Your task to perform on an android device: turn pop-ups on in chrome Image 0: 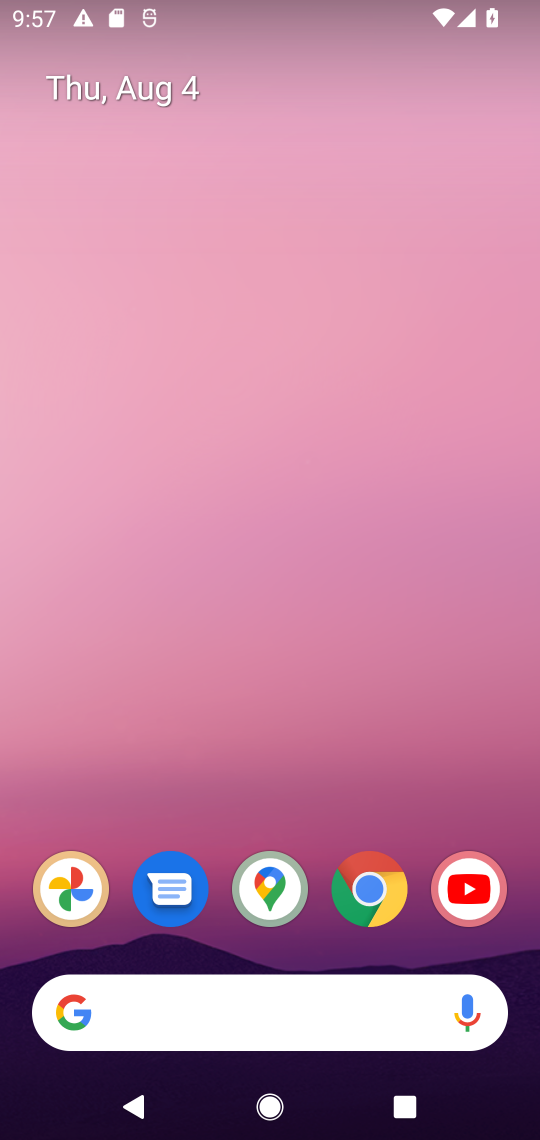
Step 0: press home button
Your task to perform on an android device: turn pop-ups on in chrome Image 1: 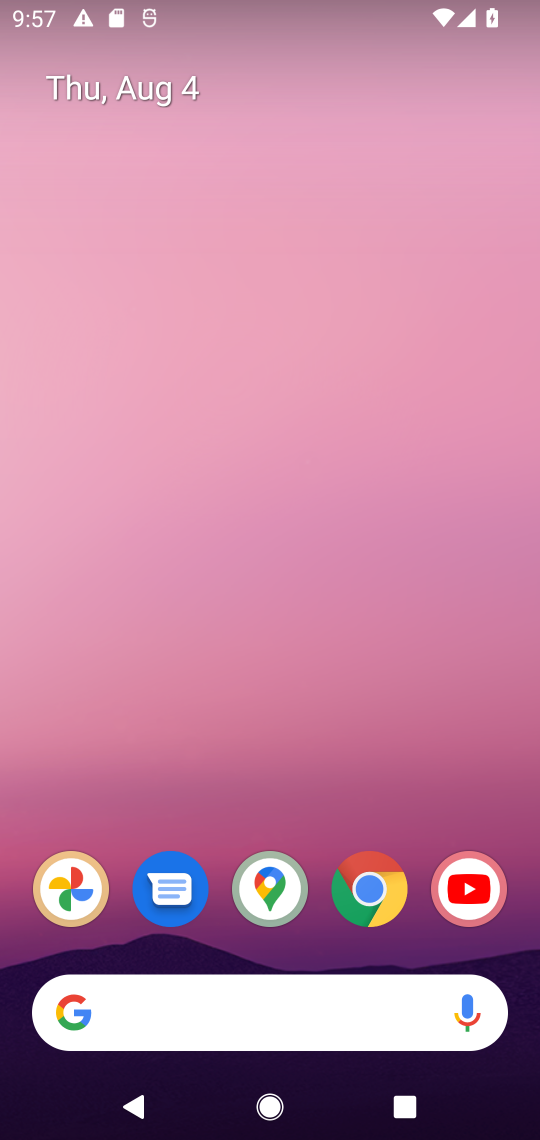
Step 1: drag from (328, 795) to (306, 218)
Your task to perform on an android device: turn pop-ups on in chrome Image 2: 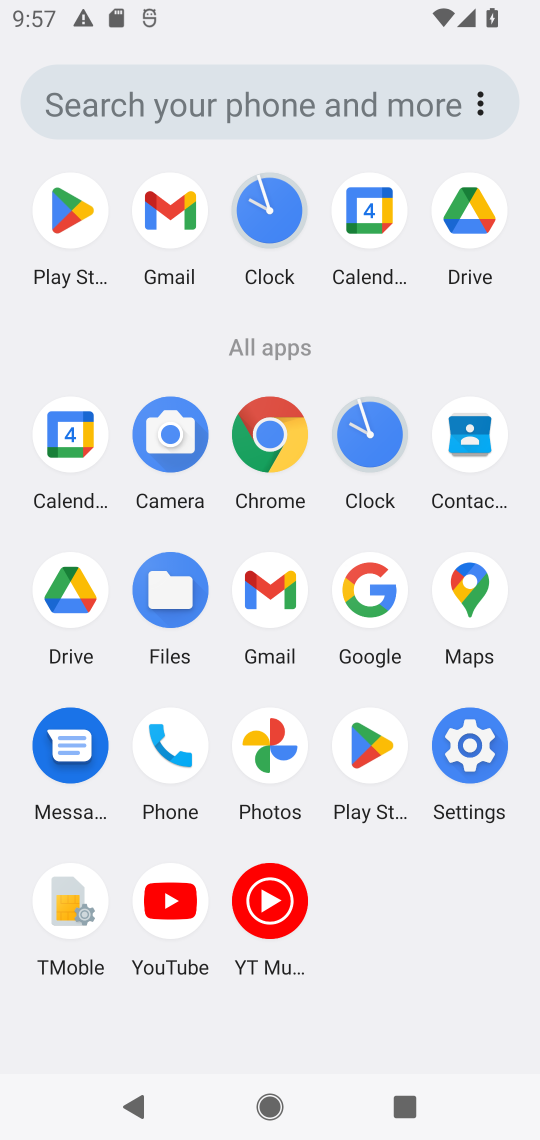
Step 2: click (267, 461)
Your task to perform on an android device: turn pop-ups on in chrome Image 3: 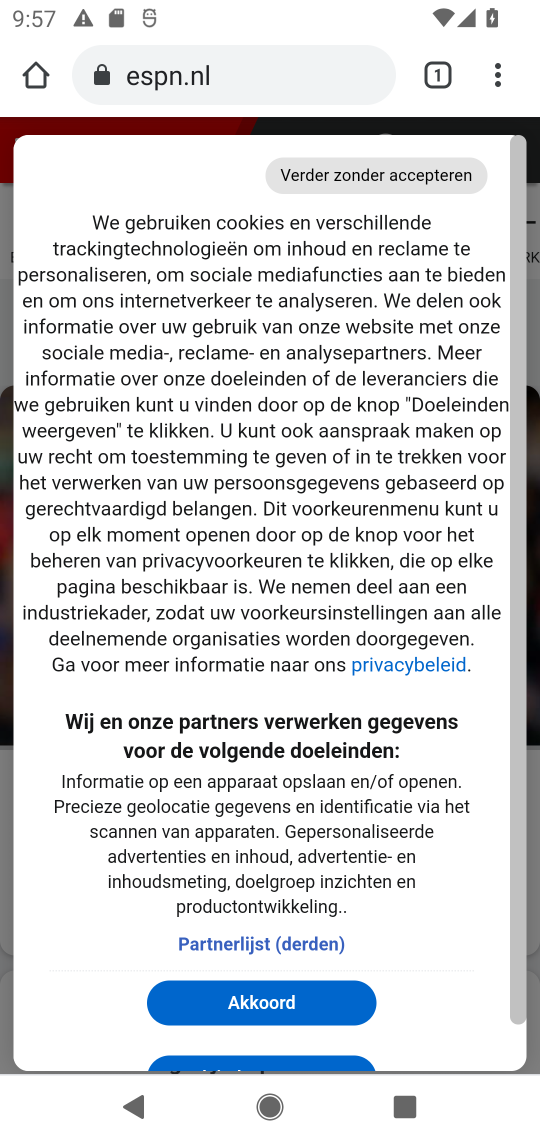
Step 3: click (498, 73)
Your task to perform on an android device: turn pop-ups on in chrome Image 4: 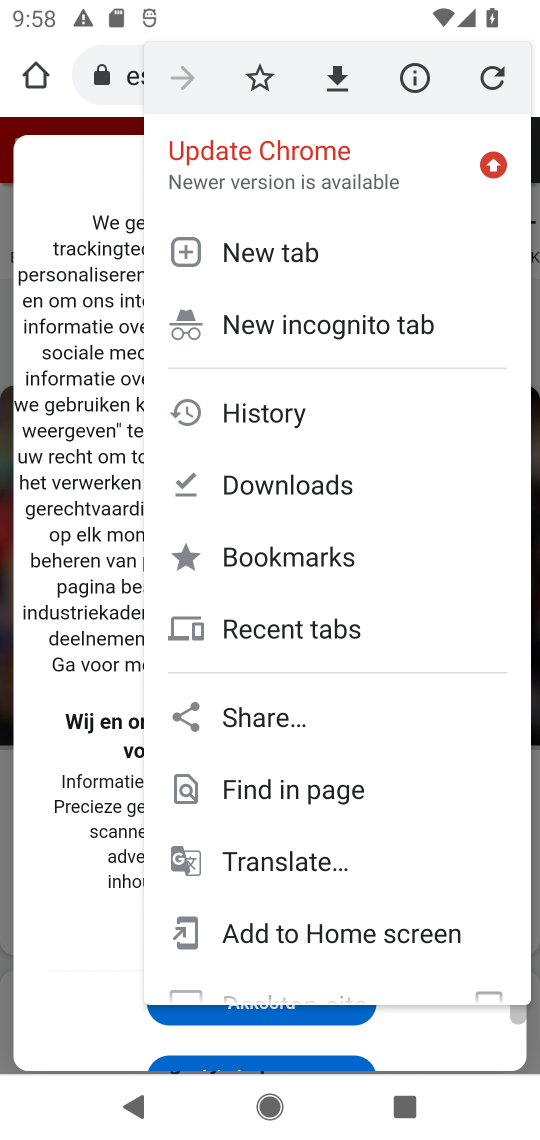
Step 4: drag from (475, 536) to (476, 376)
Your task to perform on an android device: turn pop-ups on in chrome Image 5: 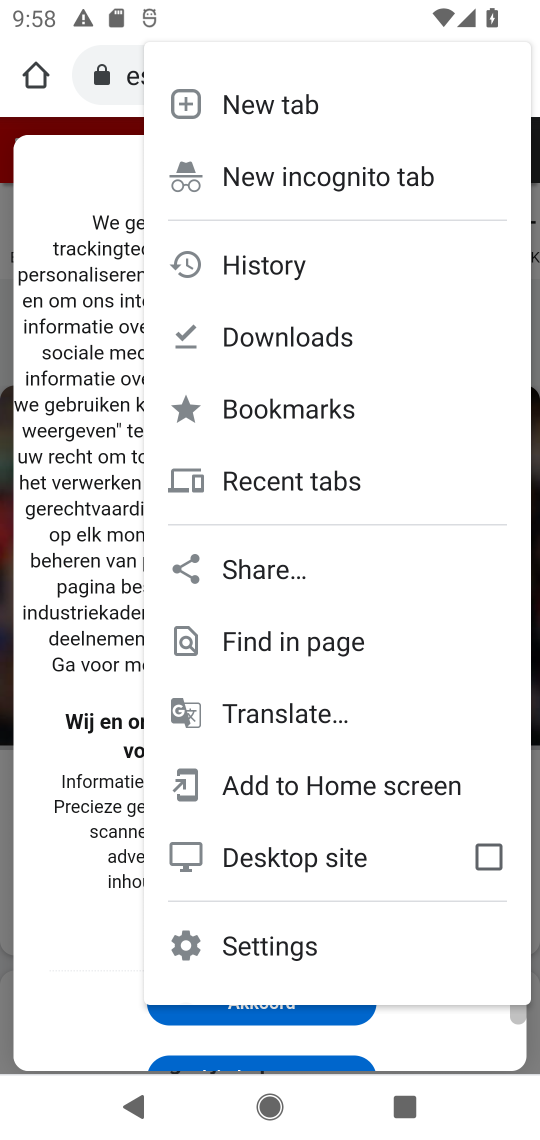
Step 5: click (276, 947)
Your task to perform on an android device: turn pop-ups on in chrome Image 6: 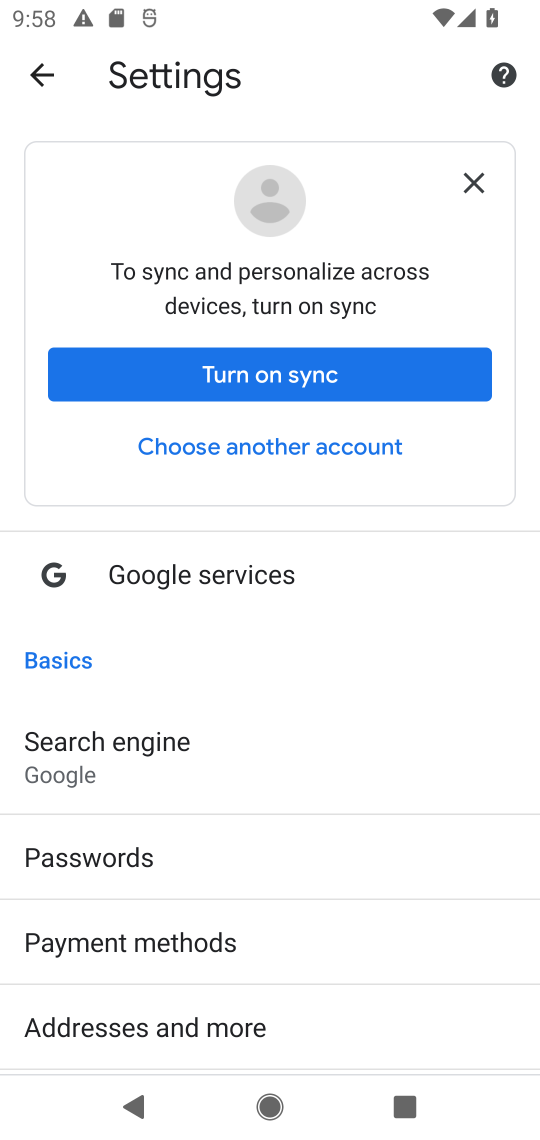
Step 6: drag from (409, 932) to (424, 746)
Your task to perform on an android device: turn pop-ups on in chrome Image 7: 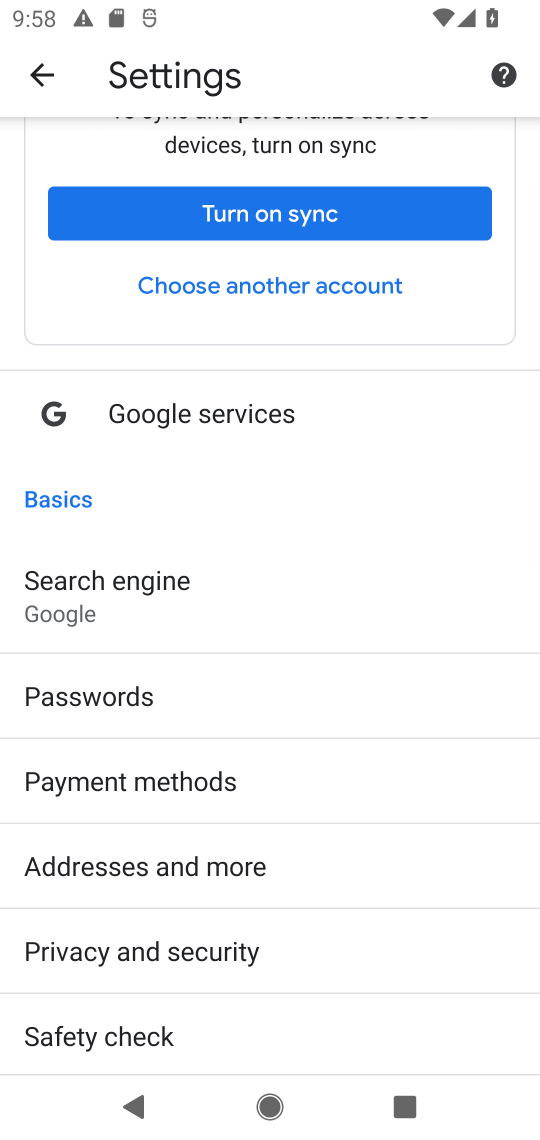
Step 7: drag from (375, 930) to (395, 744)
Your task to perform on an android device: turn pop-ups on in chrome Image 8: 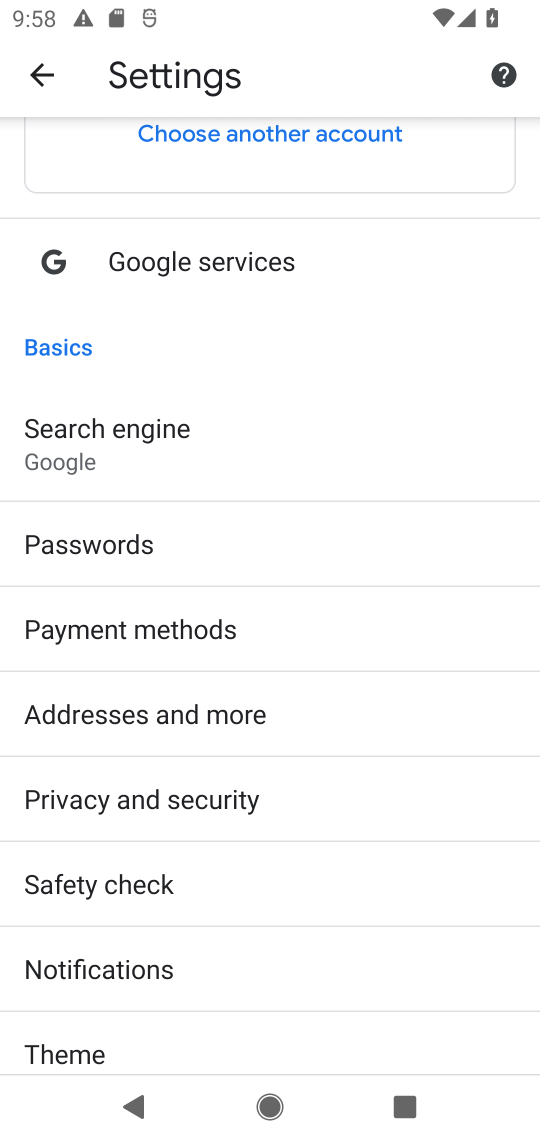
Step 8: drag from (376, 958) to (400, 766)
Your task to perform on an android device: turn pop-ups on in chrome Image 9: 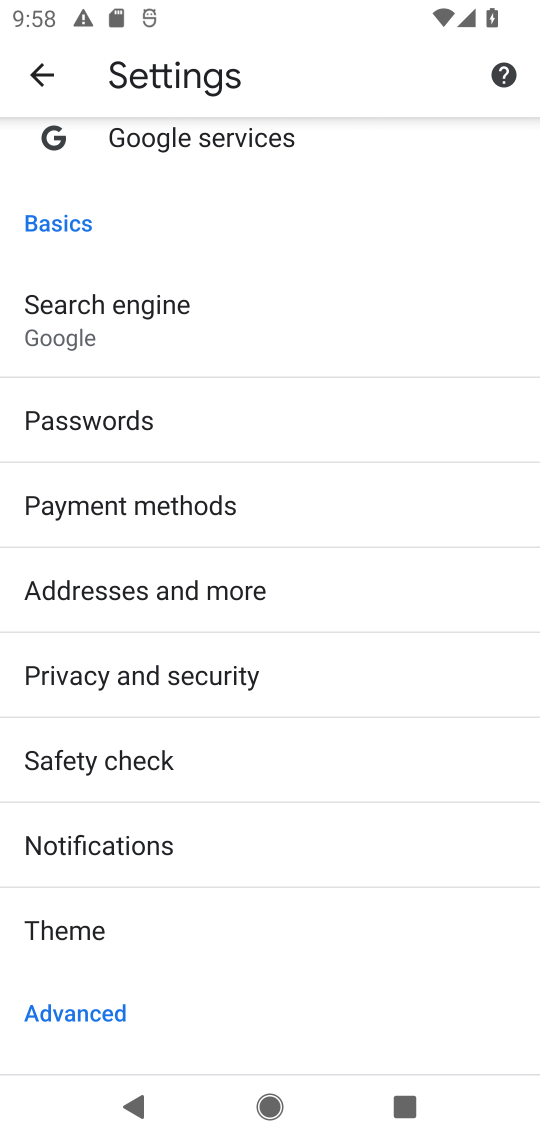
Step 9: drag from (374, 973) to (409, 700)
Your task to perform on an android device: turn pop-ups on in chrome Image 10: 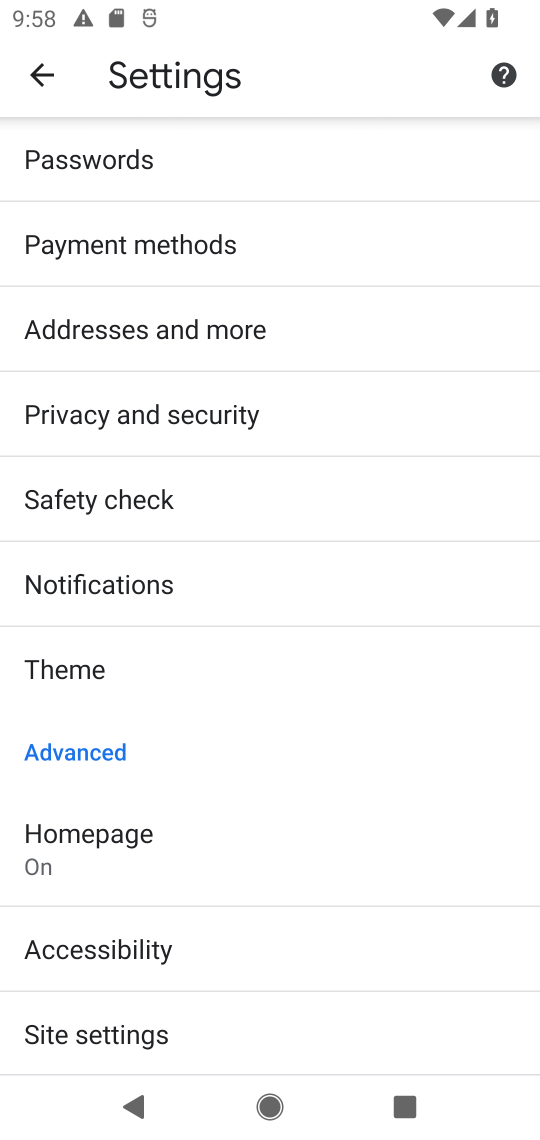
Step 10: drag from (366, 986) to (403, 686)
Your task to perform on an android device: turn pop-ups on in chrome Image 11: 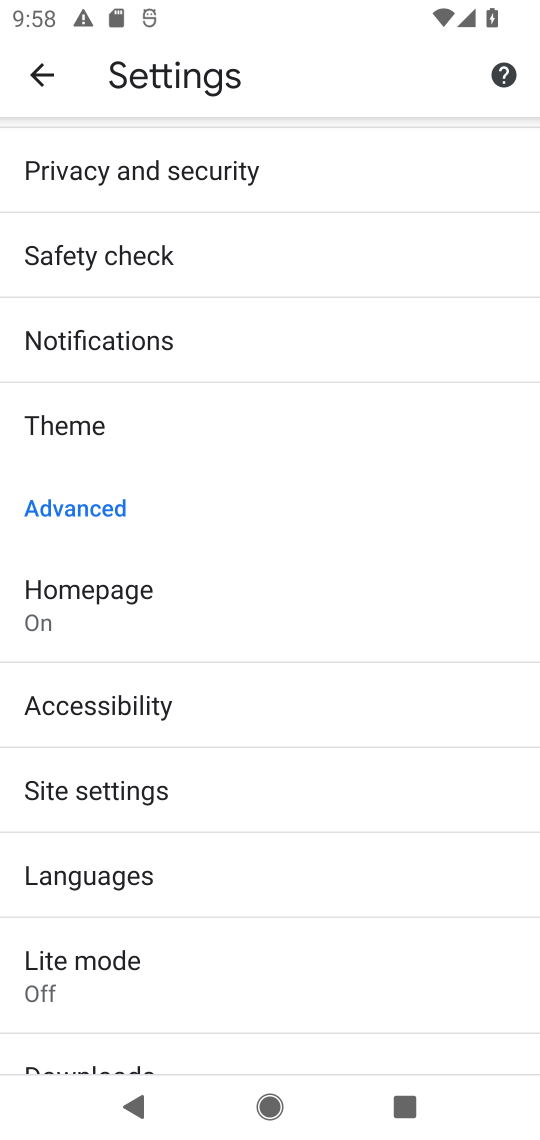
Step 11: drag from (391, 983) to (425, 755)
Your task to perform on an android device: turn pop-ups on in chrome Image 12: 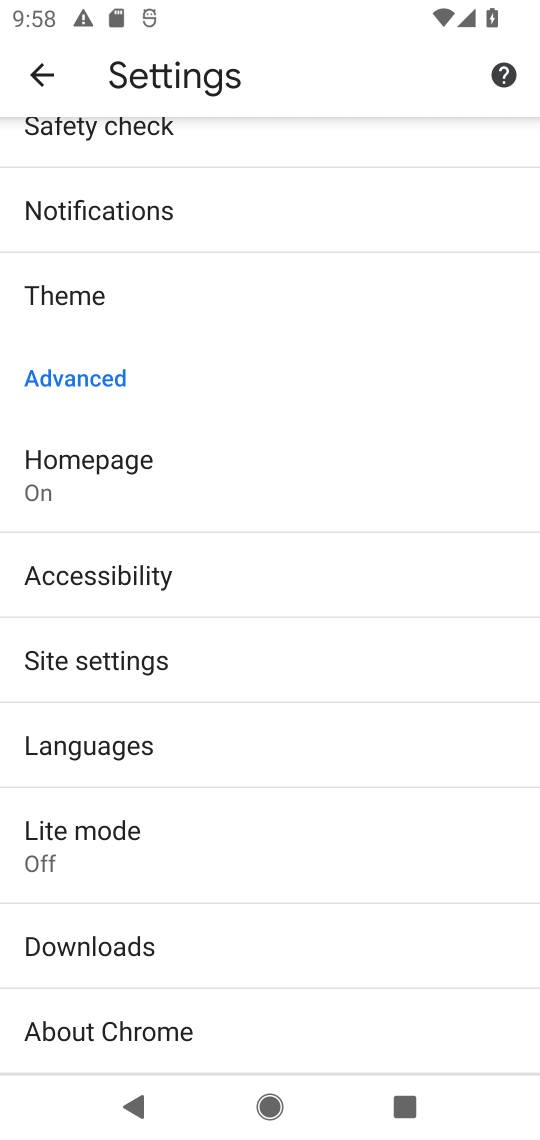
Step 12: drag from (385, 987) to (414, 668)
Your task to perform on an android device: turn pop-ups on in chrome Image 13: 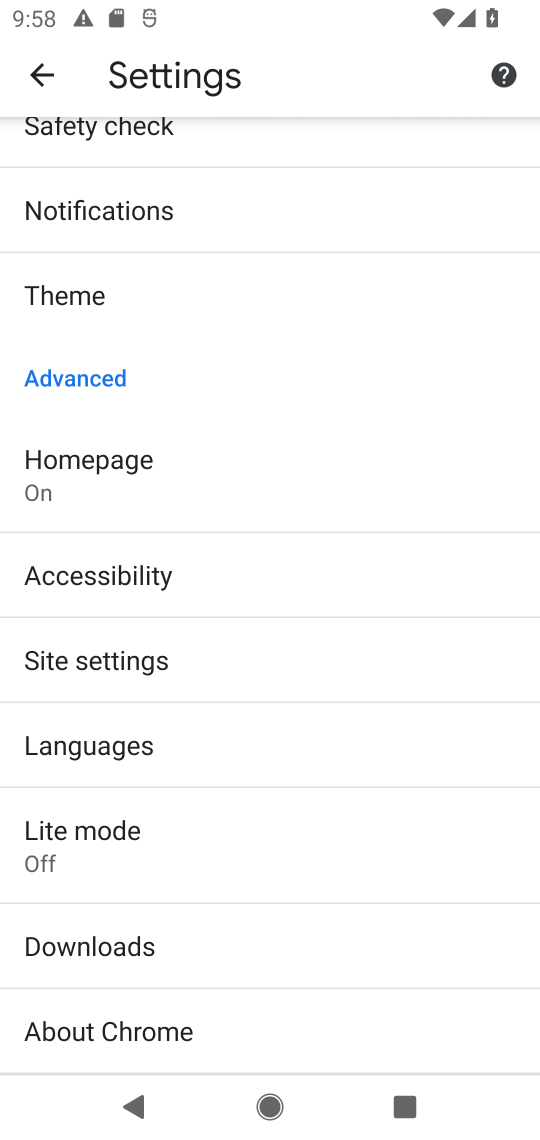
Step 13: click (309, 656)
Your task to perform on an android device: turn pop-ups on in chrome Image 14: 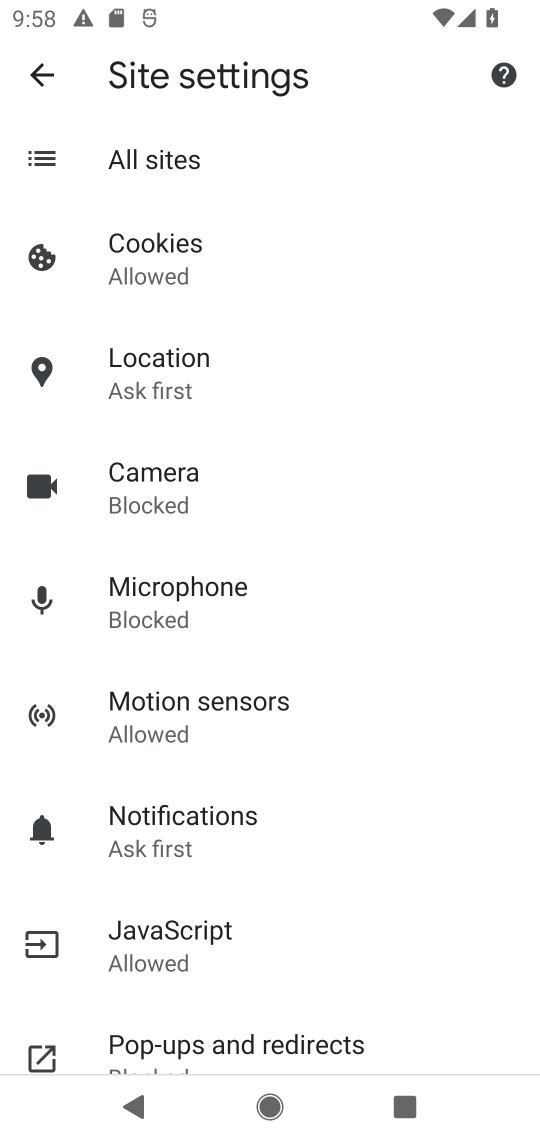
Step 14: drag from (375, 803) to (381, 602)
Your task to perform on an android device: turn pop-ups on in chrome Image 15: 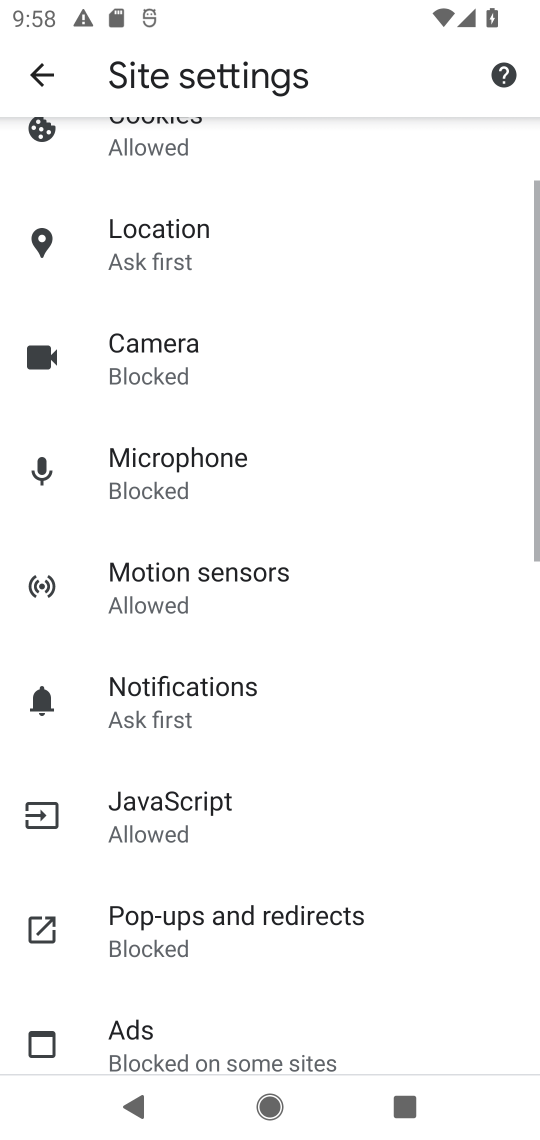
Step 15: drag from (418, 836) to (415, 611)
Your task to perform on an android device: turn pop-ups on in chrome Image 16: 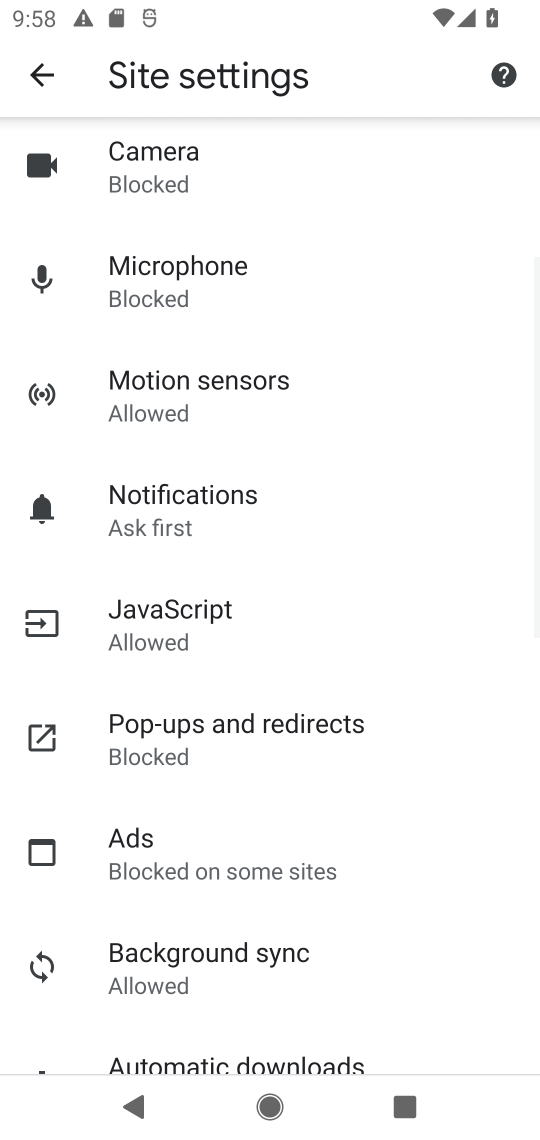
Step 16: drag from (414, 897) to (414, 666)
Your task to perform on an android device: turn pop-ups on in chrome Image 17: 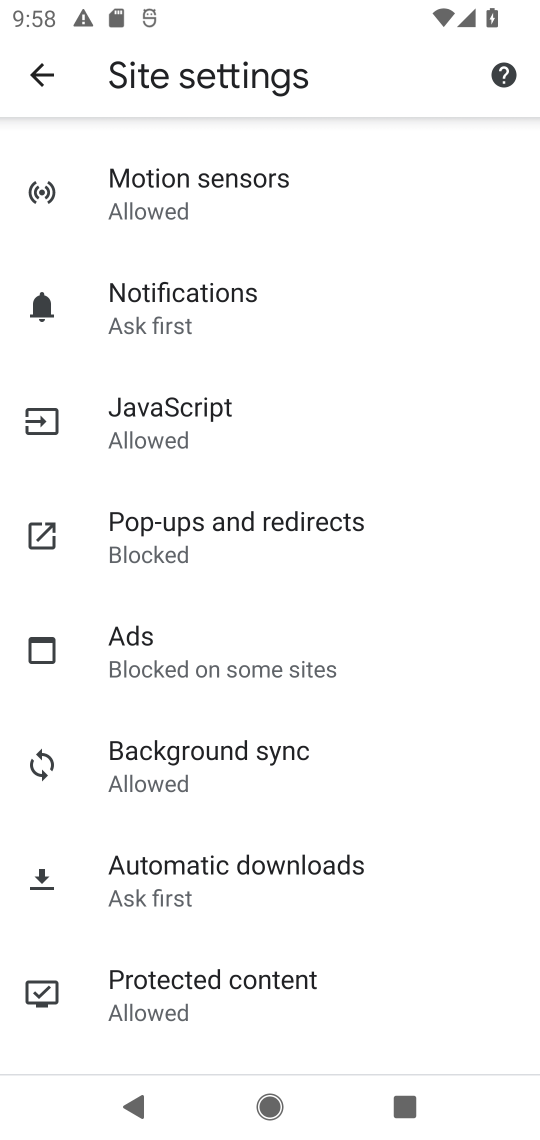
Step 17: click (362, 535)
Your task to perform on an android device: turn pop-ups on in chrome Image 18: 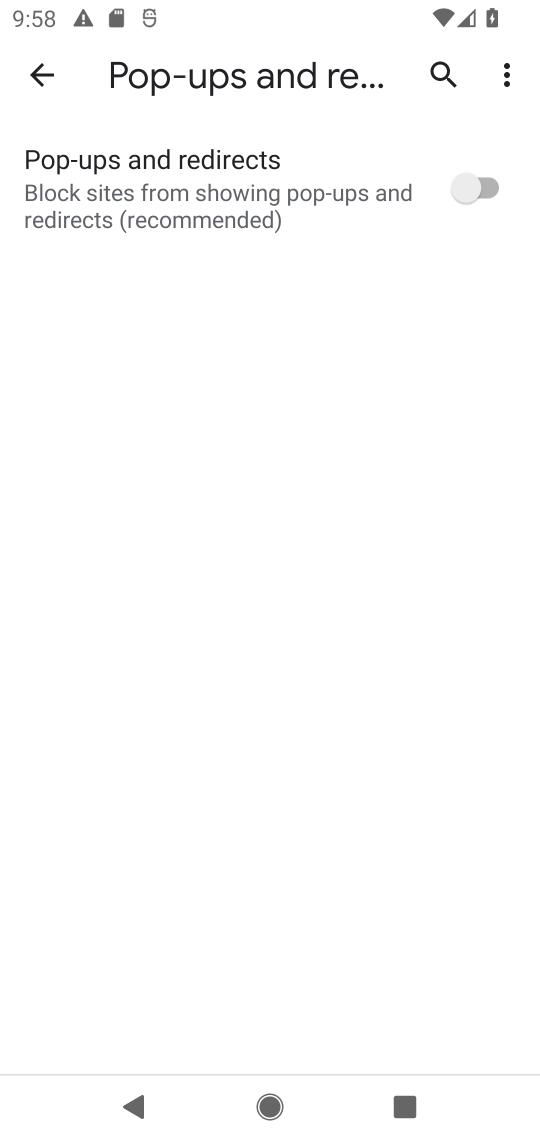
Step 18: click (457, 196)
Your task to perform on an android device: turn pop-ups on in chrome Image 19: 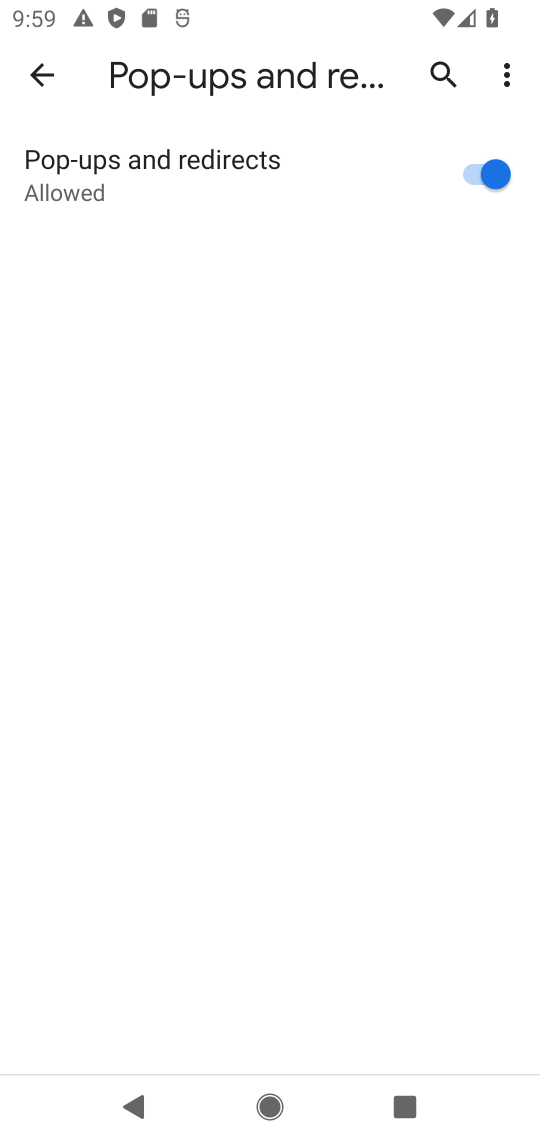
Step 19: task complete